Your task to perform on an android device: turn off wifi Image 0: 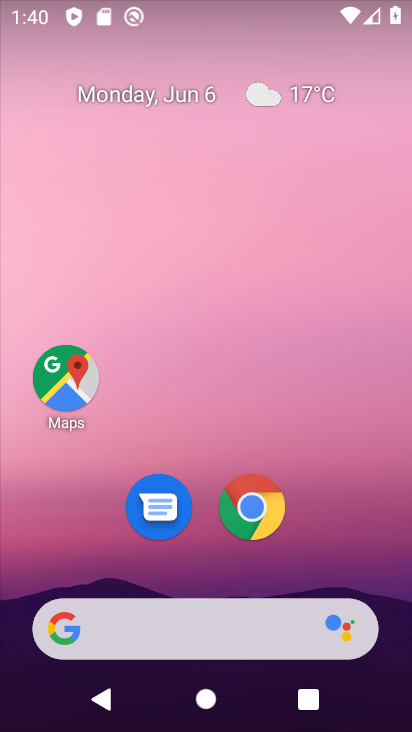
Step 0: drag from (296, 330) to (267, 162)
Your task to perform on an android device: turn off wifi Image 1: 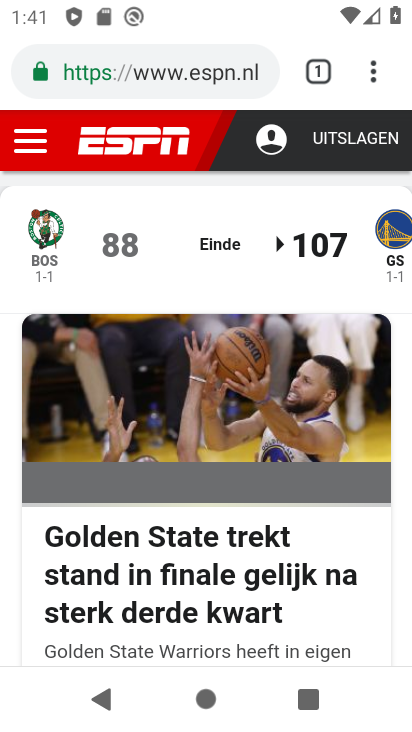
Step 1: press home button
Your task to perform on an android device: turn off wifi Image 2: 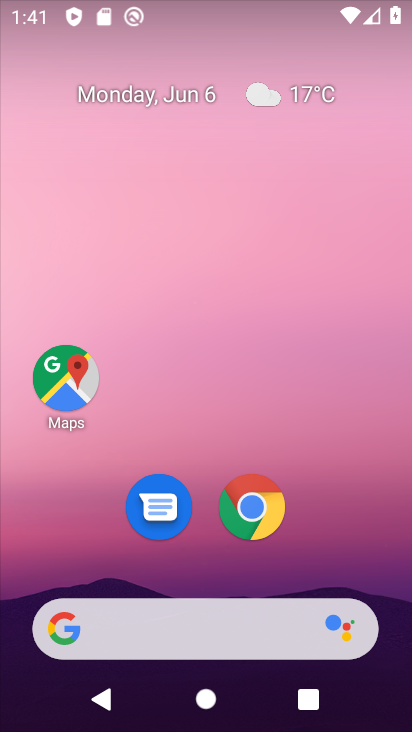
Step 2: drag from (345, 519) to (254, 130)
Your task to perform on an android device: turn off wifi Image 3: 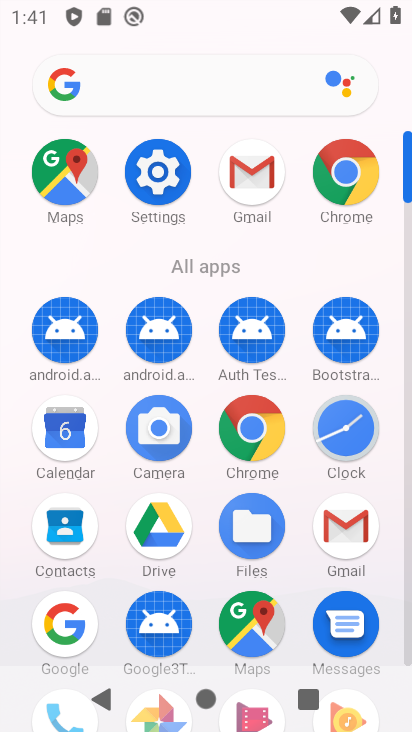
Step 3: click (153, 196)
Your task to perform on an android device: turn off wifi Image 4: 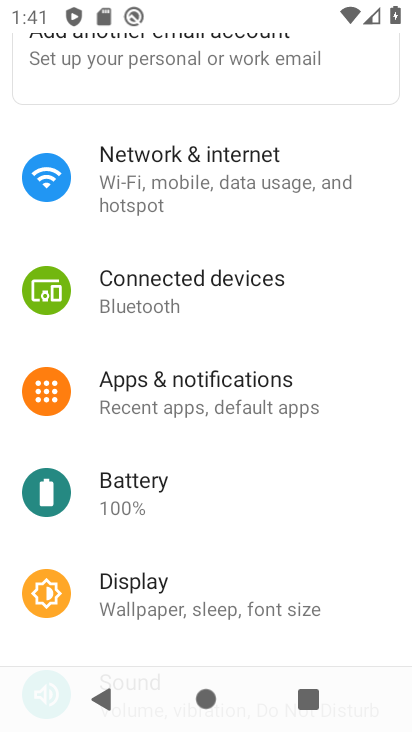
Step 4: click (153, 196)
Your task to perform on an android device: turn off wifi Image 5: 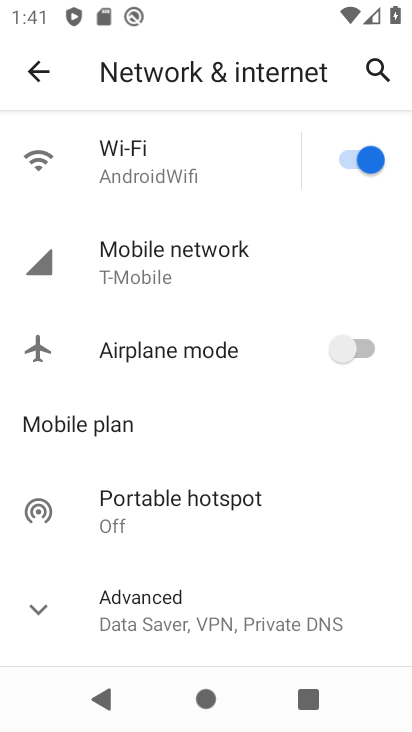
Step 5: click (368, 167)
Your task to perform on an android device: turn off wifi Image 6: 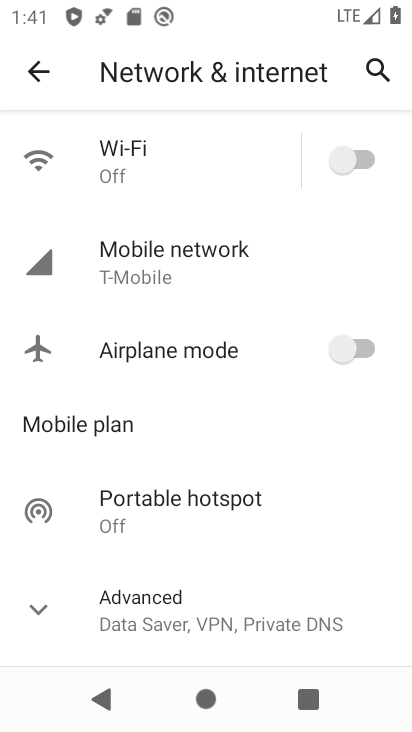
Step 6: task complete